Your task to perform on an android device: Clear all items from cart on amazon. Search for dell alienware on amazon, select the first entry, add it to the cart, then select checkout. Image 0: 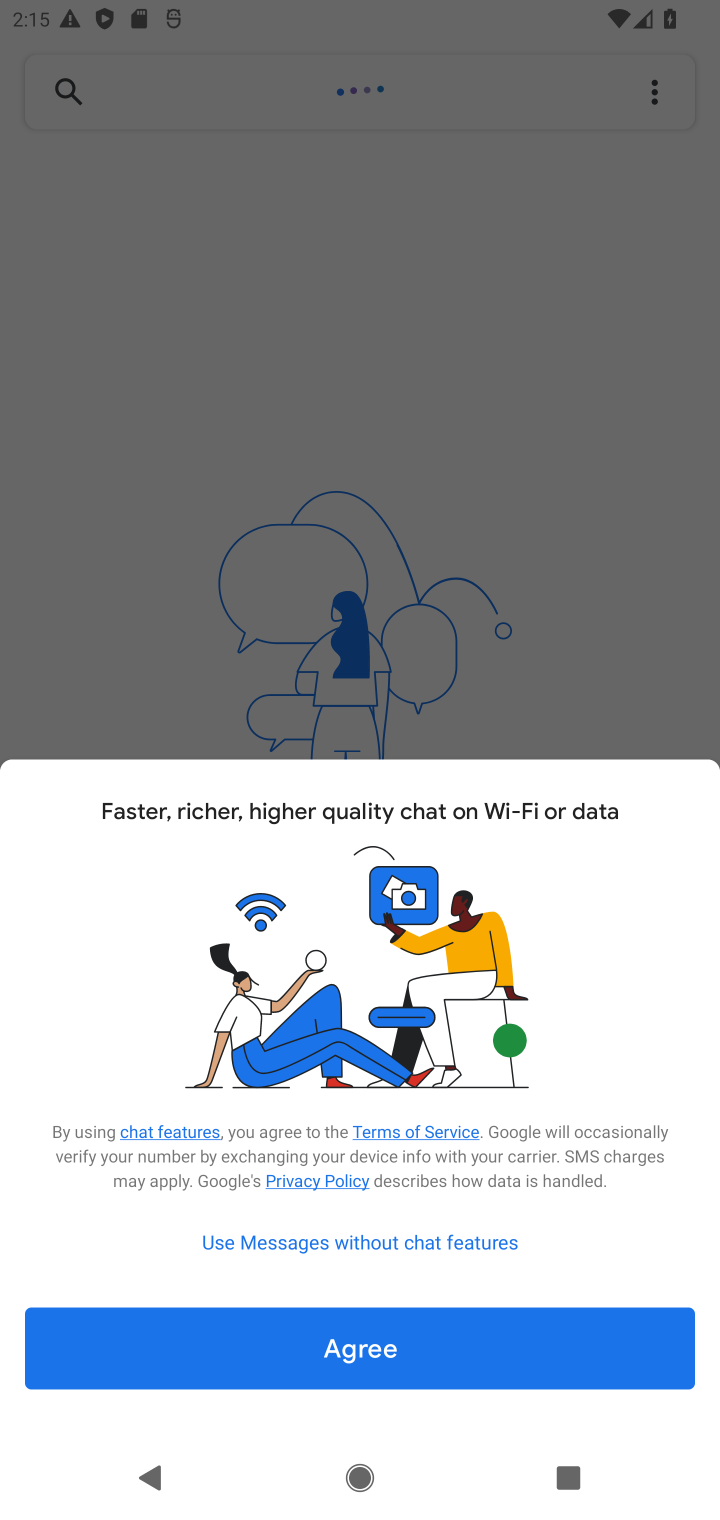
Step 0: press home button
Your task to perform on an android device: Clear all items from cart on amazon. Search for dell alienware on amazon, select the first entry, add it to the cart, then select checkout. Image 1: 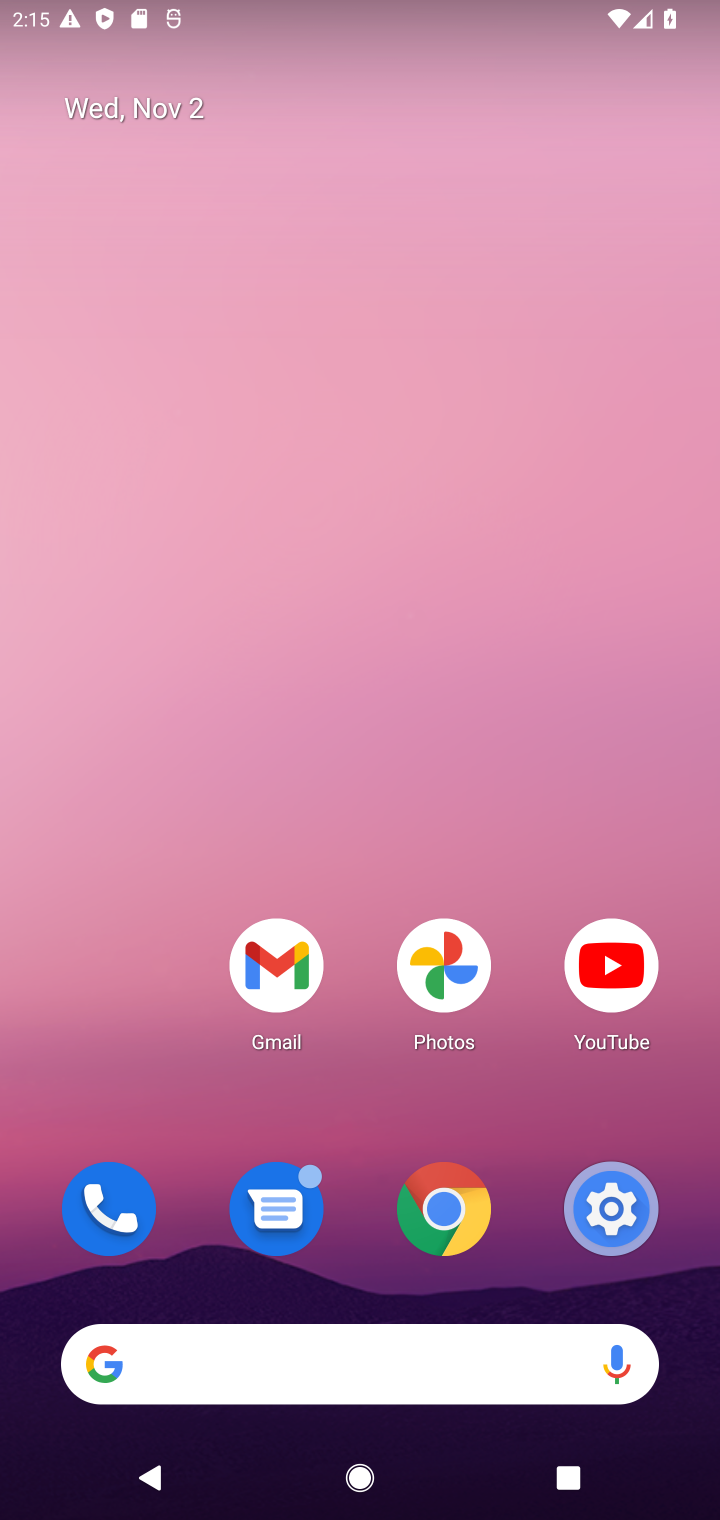
Step 1: click (324, 1376)
Your task to perform on an android device: Clear all items from cart on amazon. Search for dell alienware on amazon, select the first entry, add it to the cart, then select checkout. Image 2: 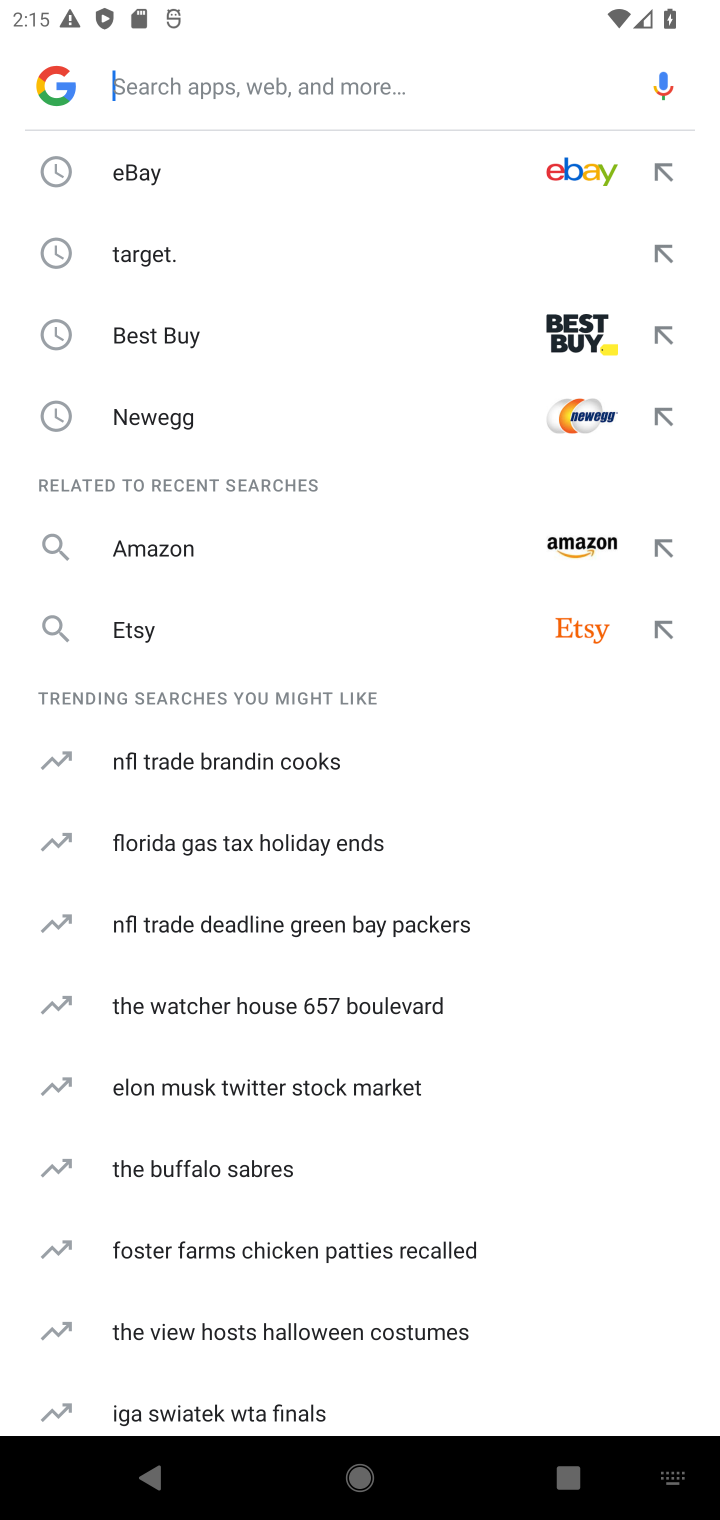
Step 2: click (180, 542)
Your task to perform on an android device: Clear all items from cart on amazon. Search for dell alienware on amazon, select the first entry, add it to the cart, then select checkout. Image 3: 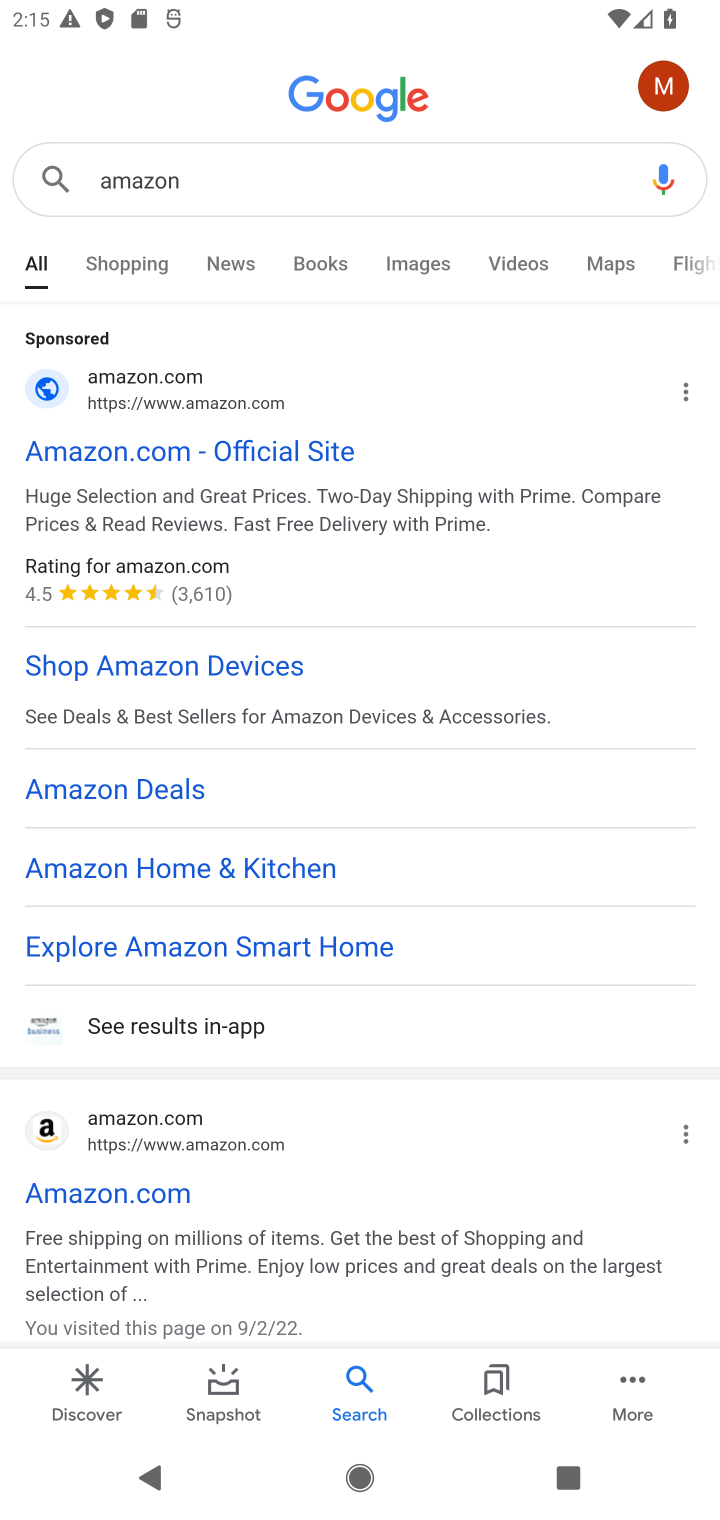
Step 3: click (155, 1194)
Your task to perform on an android device: Clear all items from cart on amazon. Search for dell alienware on amazon, select the first entry, add it to the cart, then select checkout. Image 4: 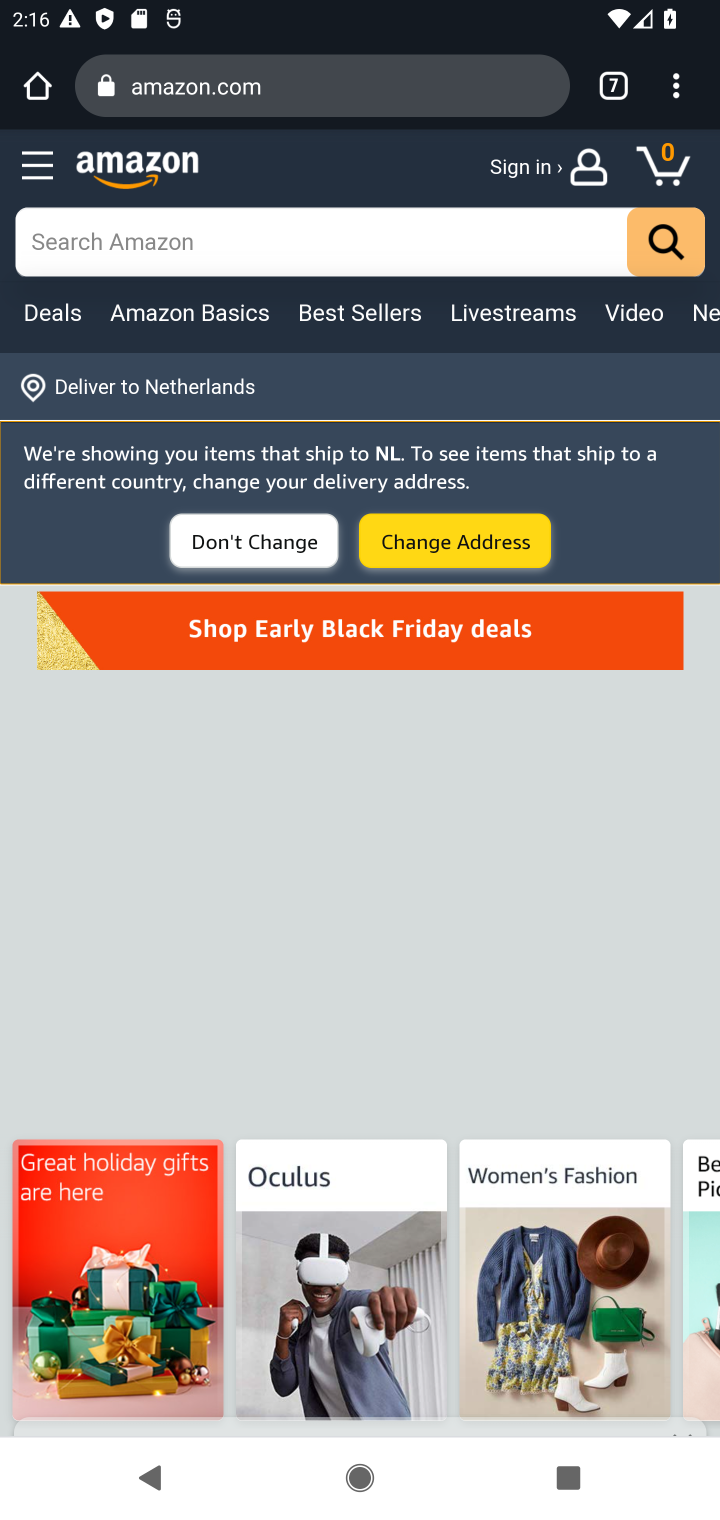
Step 4: click (308, 236)
Your task to perform on an android device: Clear all items from cart on amazon. Search for dell alienware on amazon, select the first entry, add it to the cart, then select checkout. Image 5: 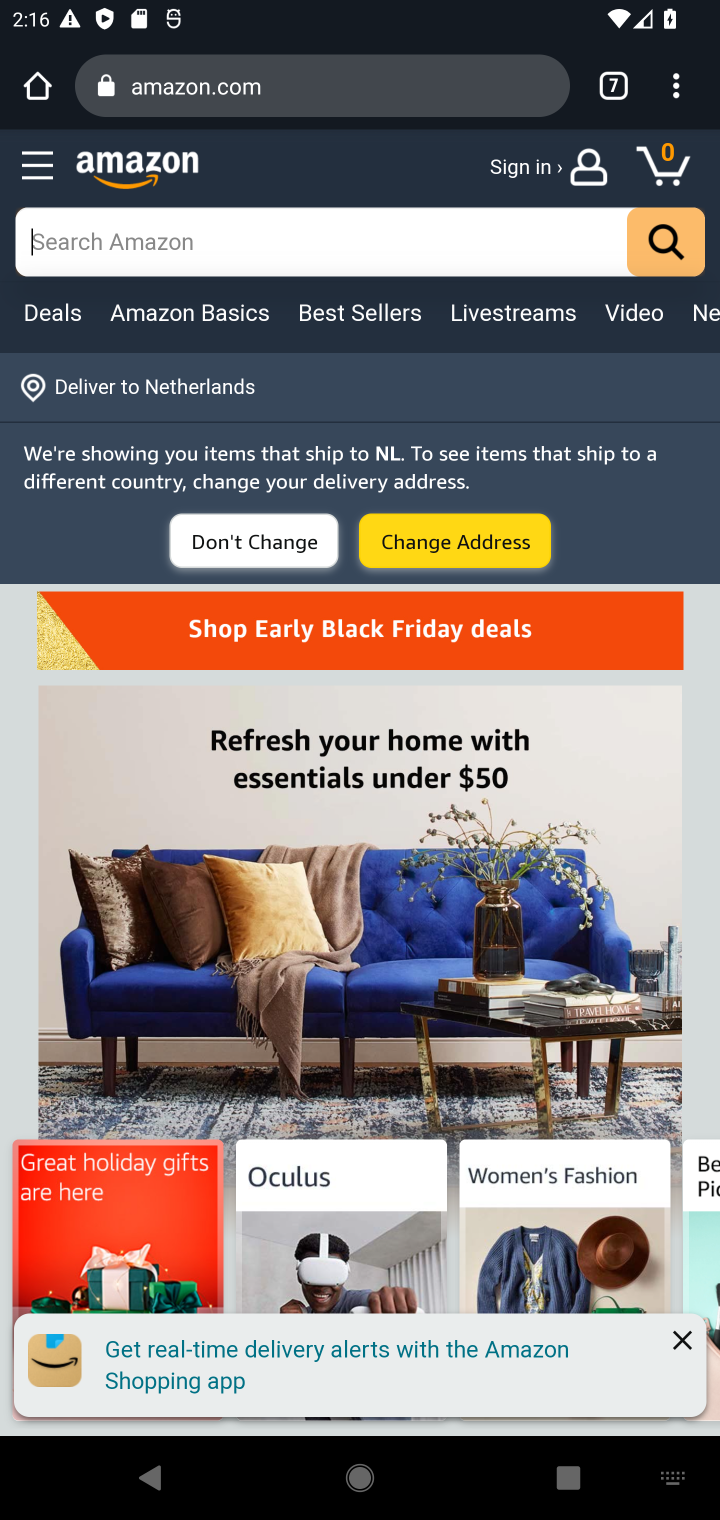
Step 5: type "dell alienware"
Your task to perform on an android device: Clear all items from cart on amazon. Search for dell alienware on amazon, select the first entry, add it to the cart, then select checkout. Image 6: 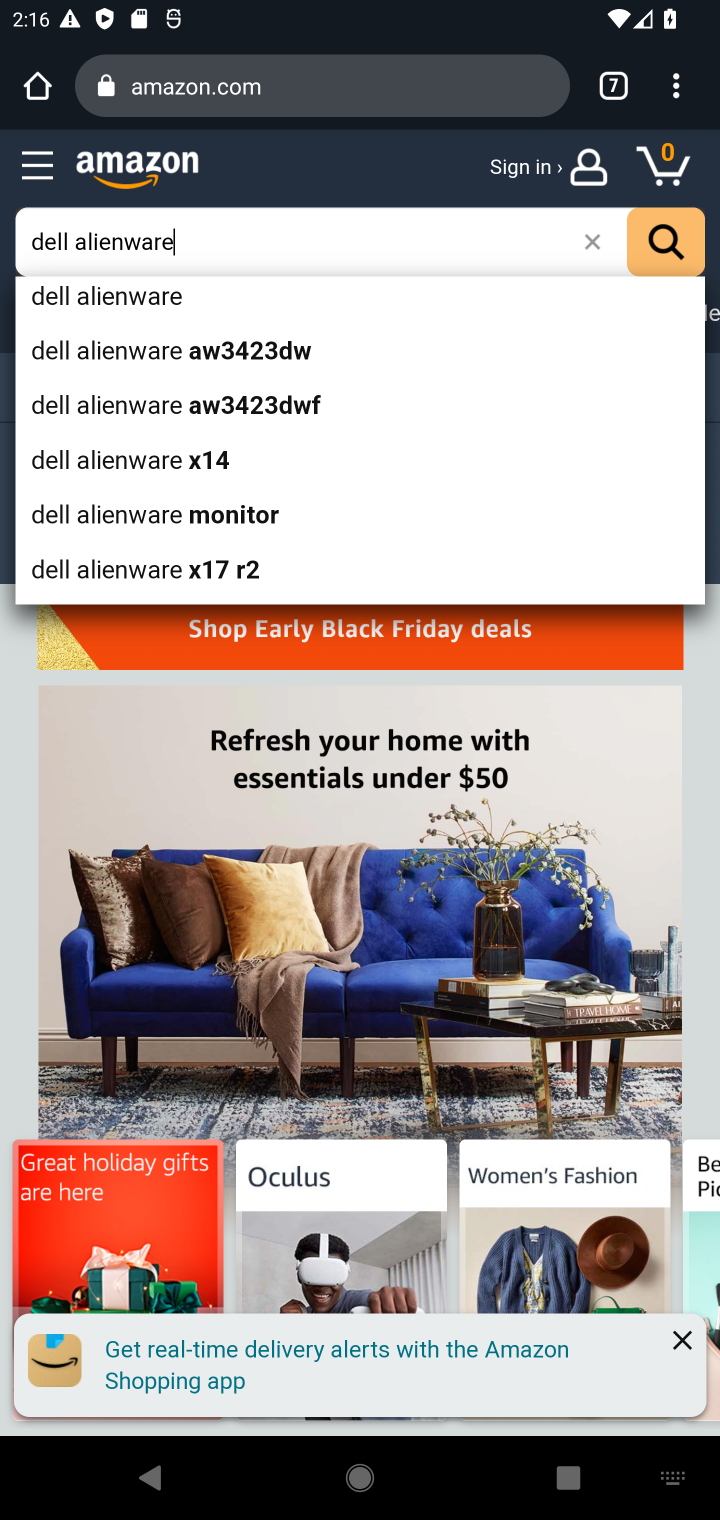
Step 6: click (166, 299)
Your task to perform on an android device: Clear all items from cart on amazon. Search for dell alienware on amazon, select the first entry, add it to the cart, then select checkout. Image 7: 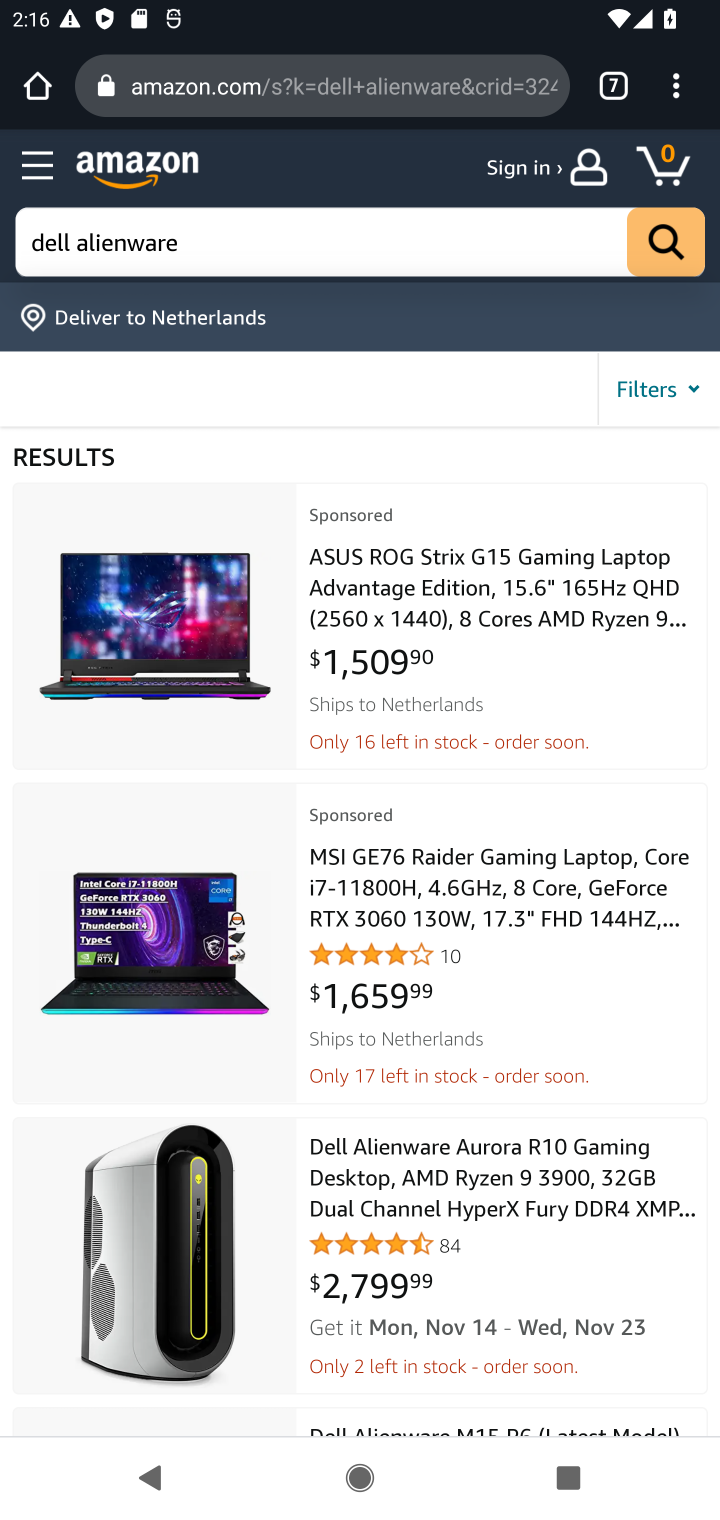
Step 7: click (383, 578)
Your task to perform on an android device: Clear all items from cart on amazon. Search for dell alienware on amazon, select the first entry, add it to the cart, then select checkout. Image 8: 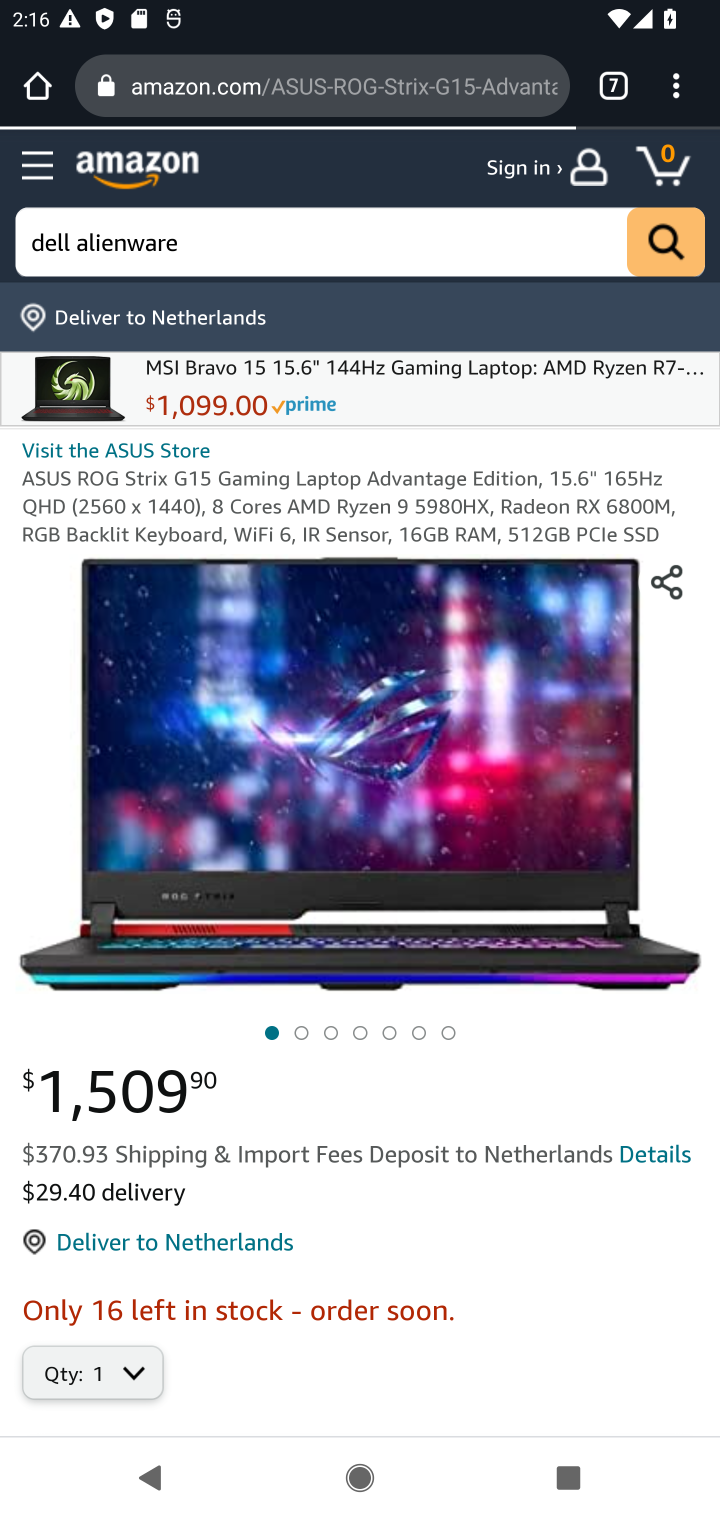
Step 8: drag from (594, 1083) to (467, 470)
Your task to perform on an android device: Clear all items from cart on amazon. Search for dell alienware on amazon, select the first entry, add it to the cart, then select checkout. Image 9: 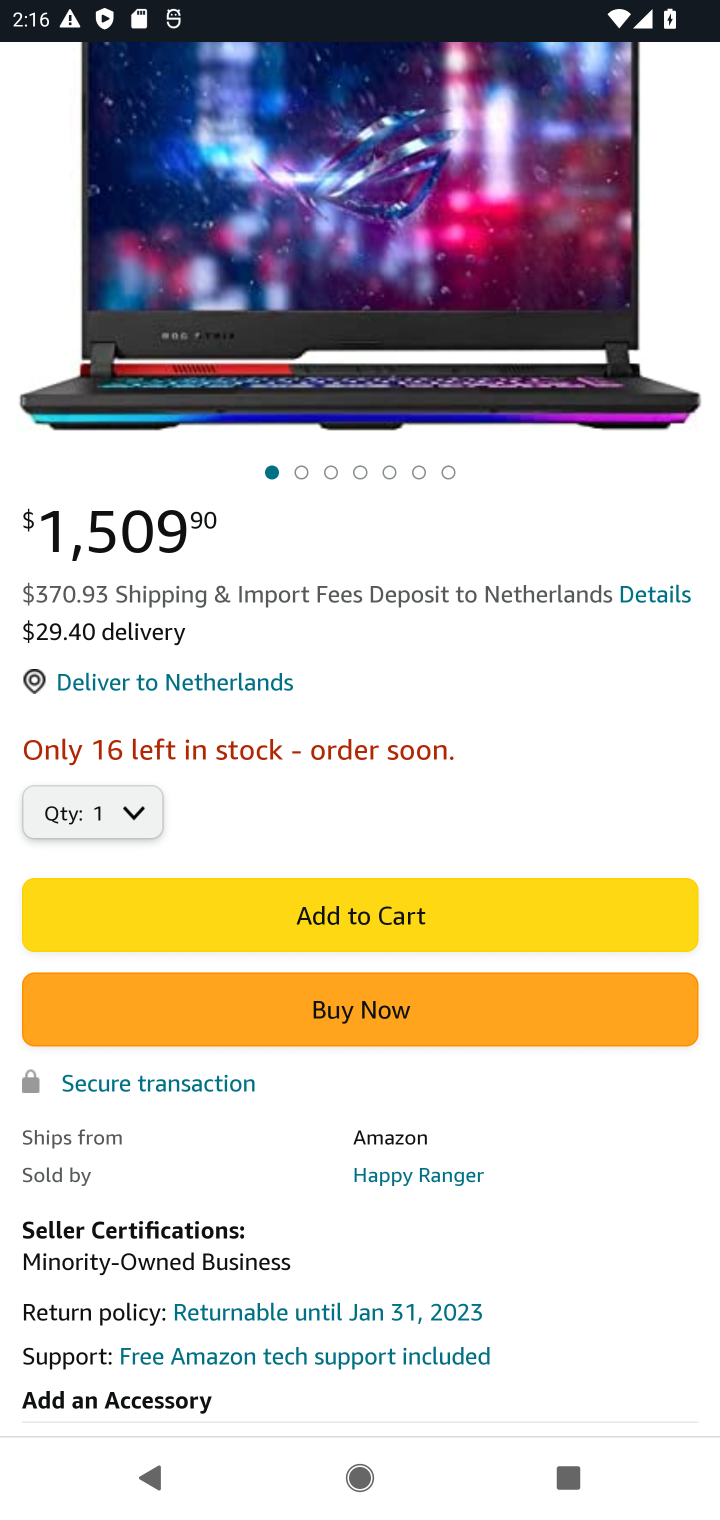
Step 9: click (323, 923)
Your task to perform on an android device: Clear all items from cart on amazon. Search for dell alienware on amazon, select the first entry, add it to the cart, then select checkout. Image 10: 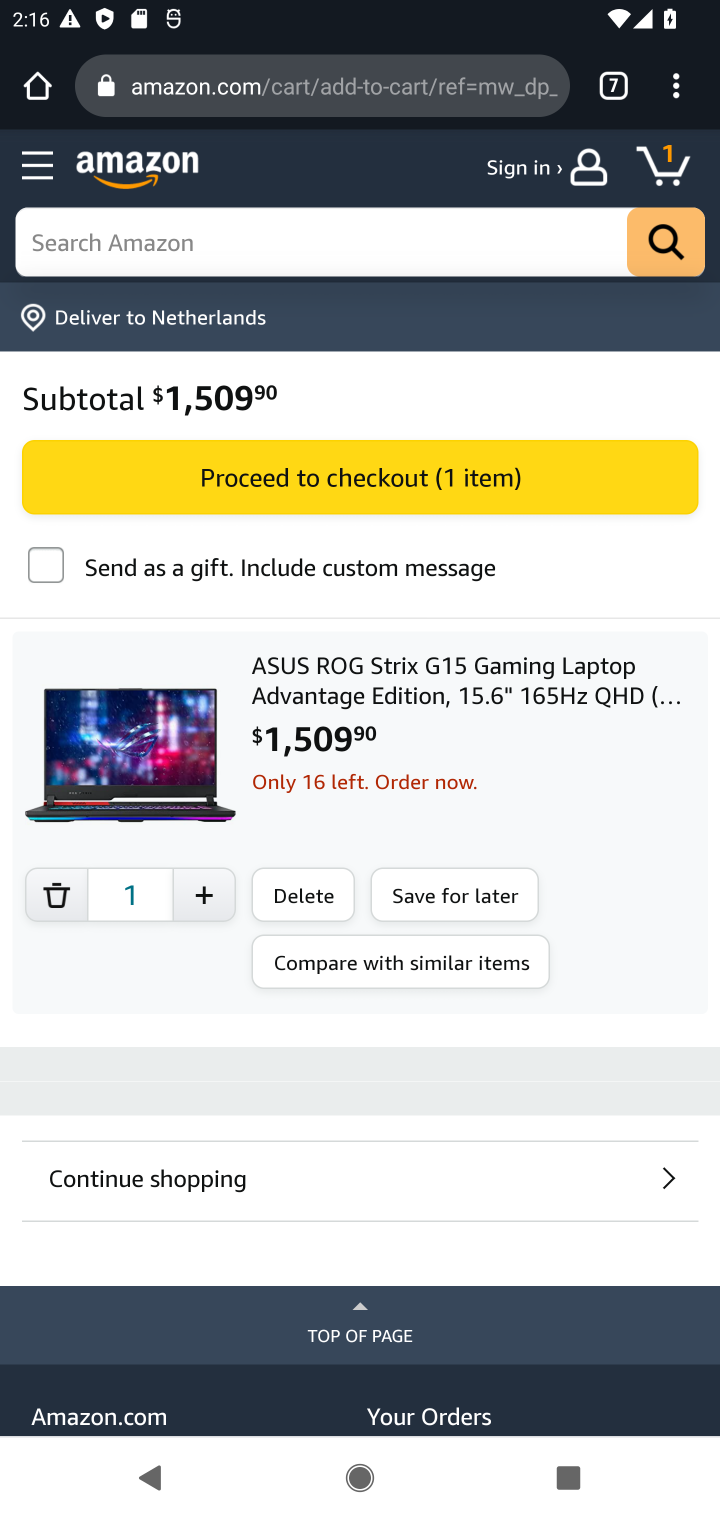
Step 10: click (349, 466)
Your task to perform on an android device: Clear all items from cart on amazon. Search for dell alienware on amazon, select the first entry, add it to the cart, then select checkout. Image 11: 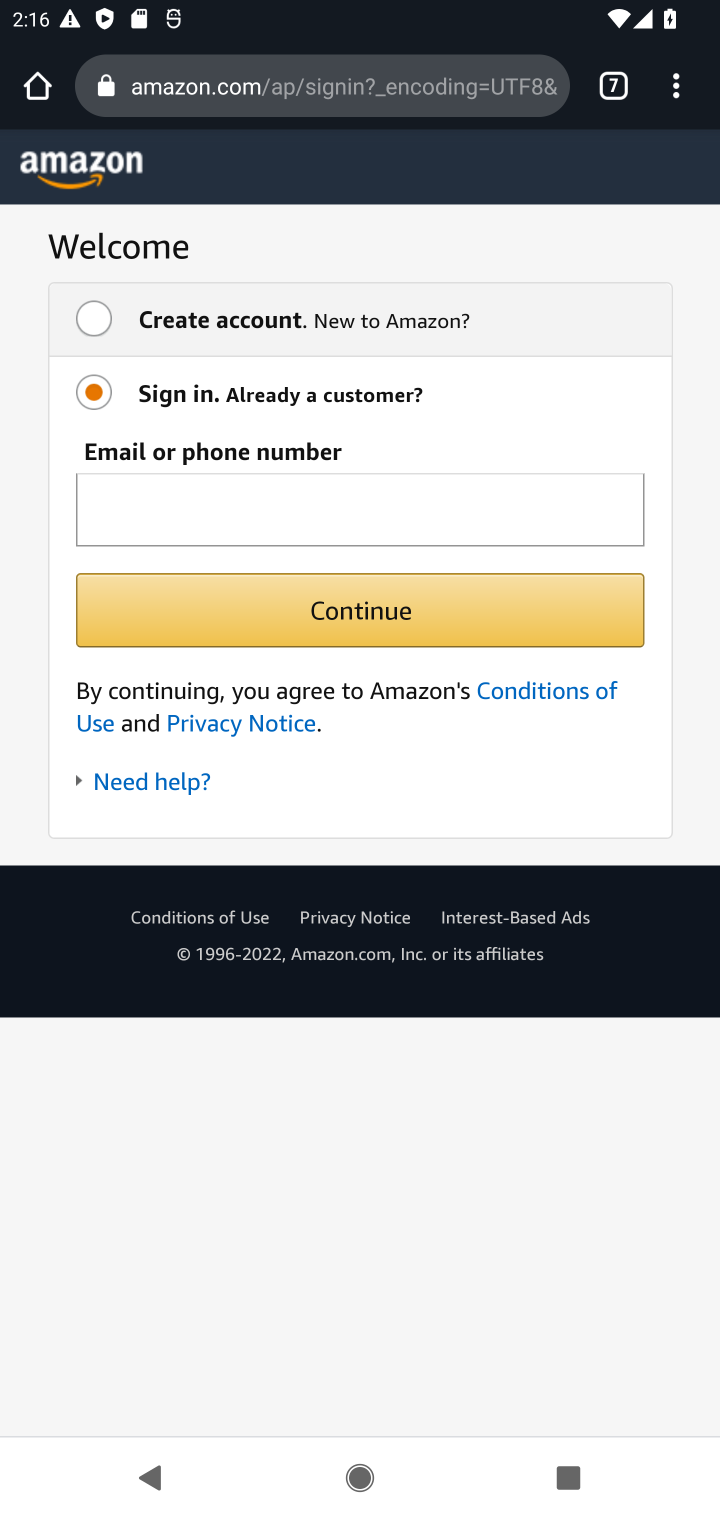
Step 11: task complete